Your task to perform on an android device: change notifications settings Image 0: 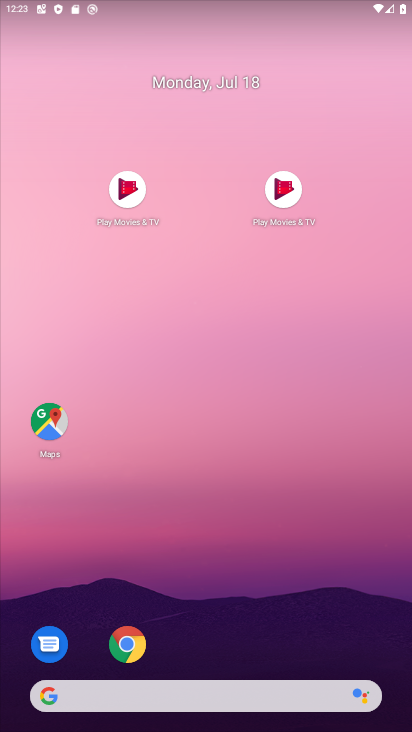
Step 0: drag from (299, 598) to (250, 133)
Your task to perform on an android device: change notifications settings Image 1: 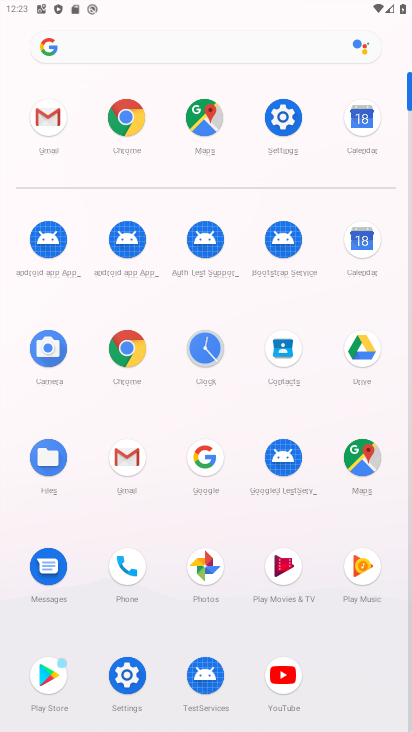
Step 1: click (280, 110)
Your task to perform on an android device: change notifications settings Image 2: 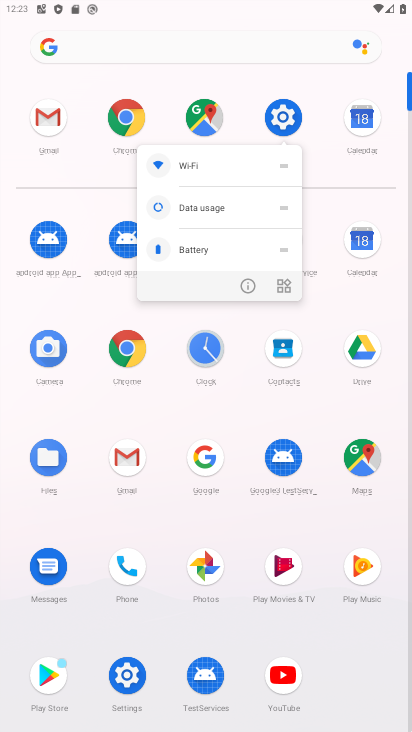
Step 2: click (275, 114)
Your task to perform on an android device: change notifications settings Image 3: 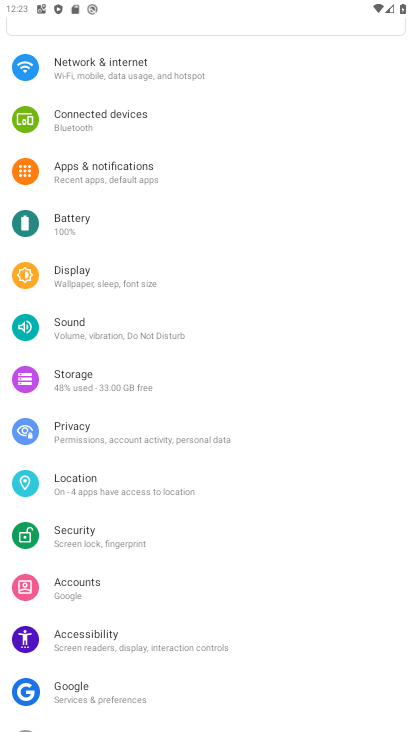
Step 3: click (117, 177)
Your task to perform on an android device: change notifications settings Image 4: 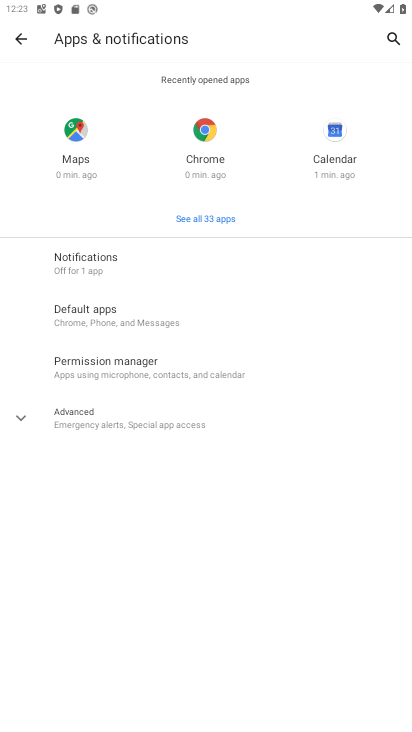
Step 4: click (84, 255)
Your task to perform on an android device: change notifications settings Image 5: 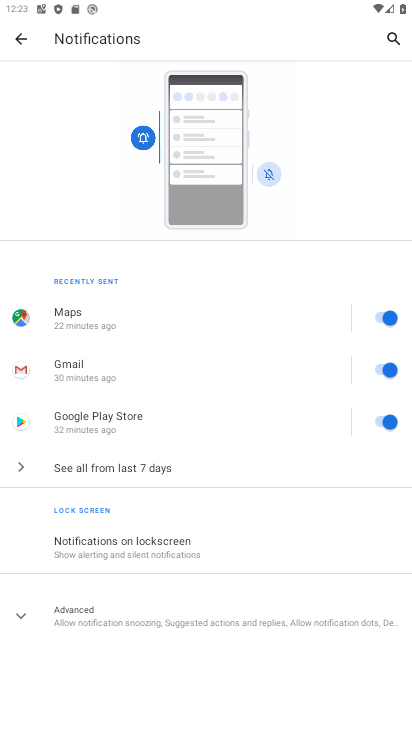
Step 5: click (131, 612)
Your task to perform on an android device: change notifications settings Image 6: 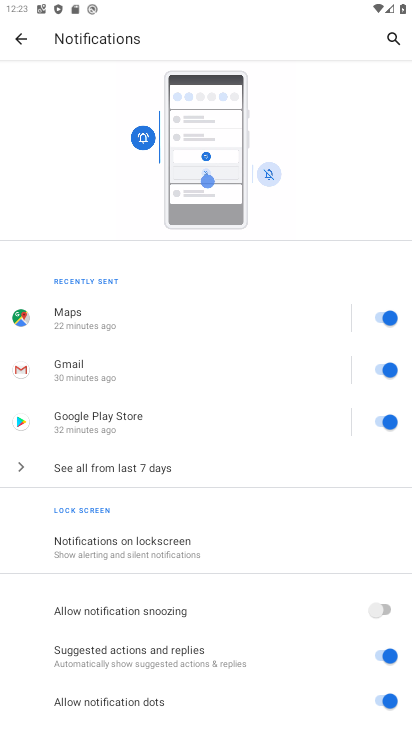
Step 6: click (369, 601)
Your task to perform on an android device: change notifications settings Image 7: 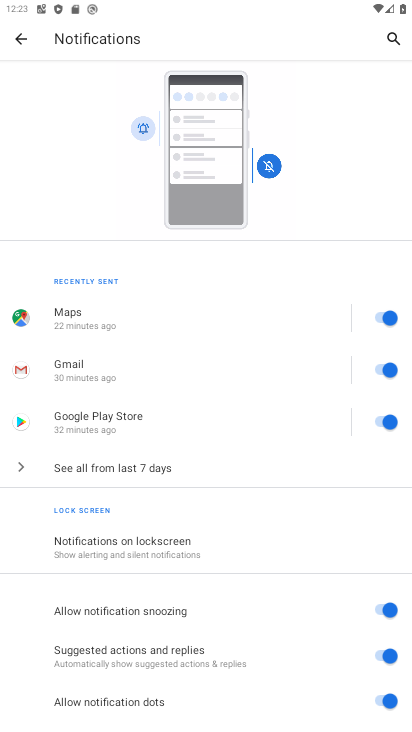
Step 7: task complete